Your task to perform on an android device: toggle notifications settings in the gmail app Image 0: 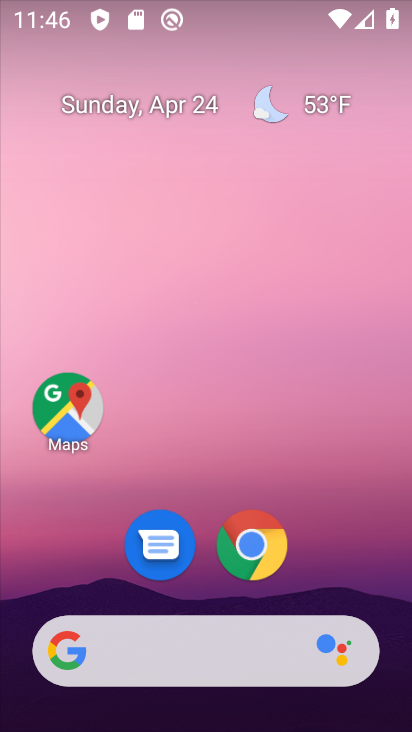
Step 0: drag from (185, 500) to (270, 80)
Your task to perform on an android device: toggle notifications settings in the gmail app Image 1: 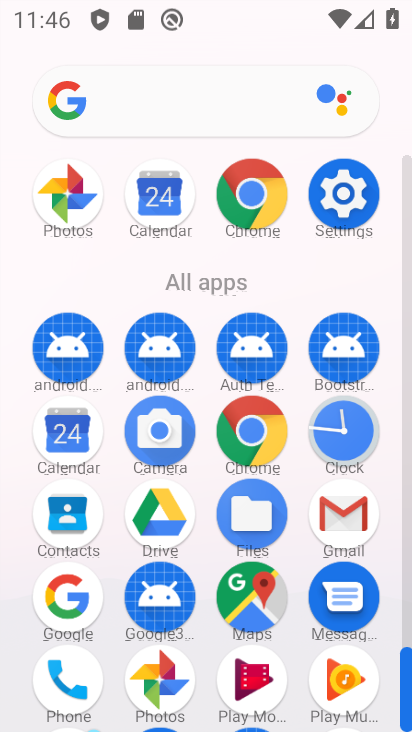
Step 1: click (355, 511)
Your task to perform on an android device: toggle notifications settings in the gmail app Image 2: 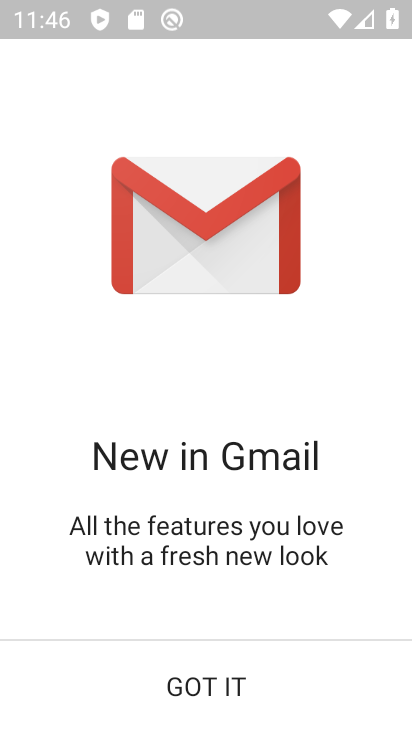
Step 2: click (253, 693)
Your task to perform on an android device: toggle notifications settings in the gmail app Image 3: 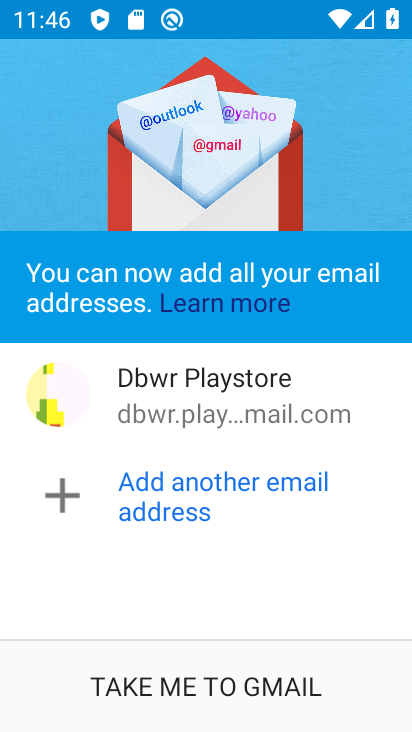
Step 3: click (244, 691)
Your task to perform on an android device: toggle notifications settings in the gmail app Image 4: 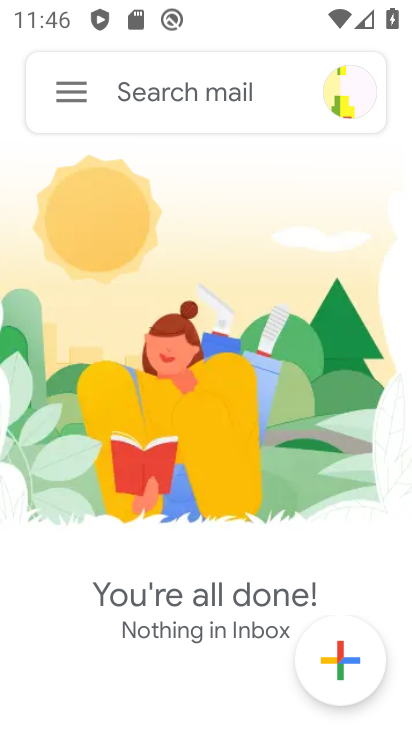
Step 4: click (87, 104)
Your task to perform on an android device: toggle notifications settings in the gmail app Image 5: 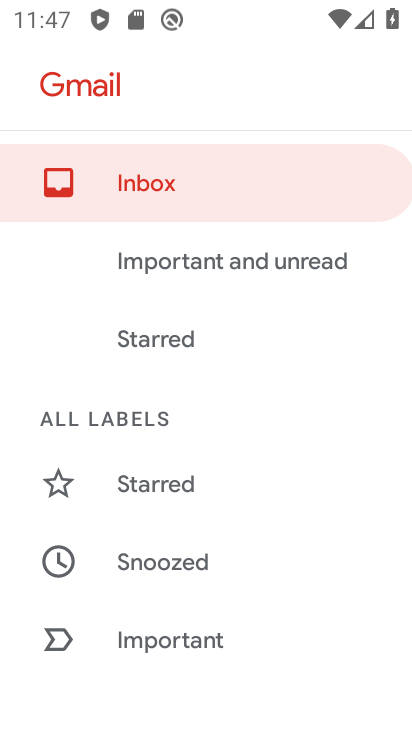
Step 5: drag from (158, 659) to (342, 46)
Your task to perform on an android device: toggle notifications settings in the gmail app Image 6: 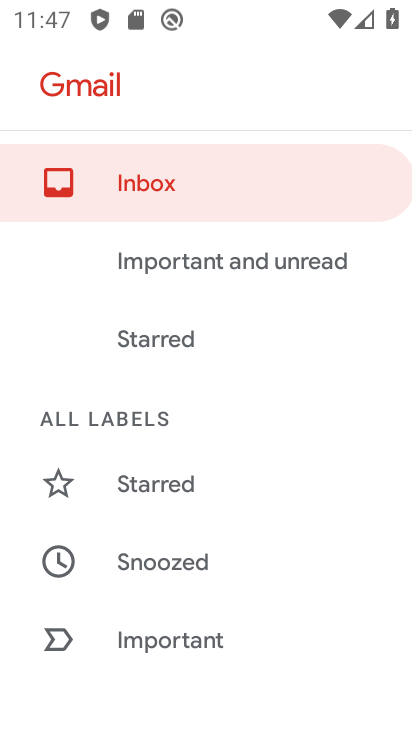
Step 6: drag from (244, 535) to (301, 186)
Your task to perform on an android device: toggle notifications settings in the gmail app Image 7: 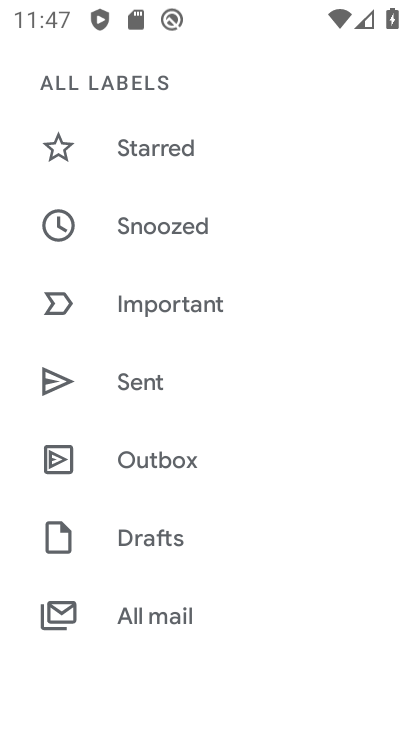
Step 7: drag from (199, 587) to (354, 47)
Your task to perform on an android device: toggle notifications settings in the gmail app Image 8: 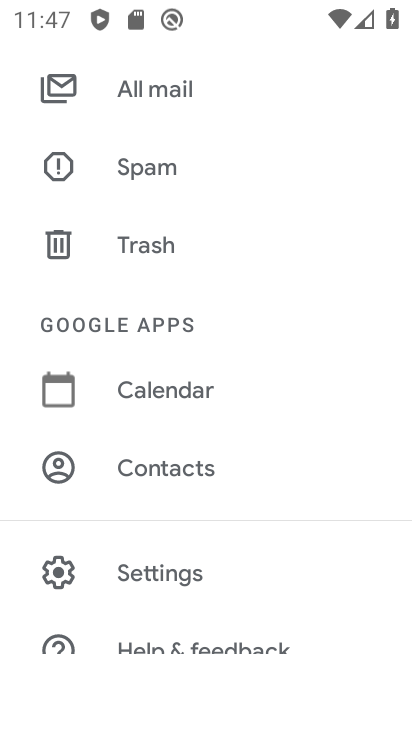
Step 8: click (237, 579)
Your task to perform on an android device: toggle notifications settings in the gmail app Image 9: 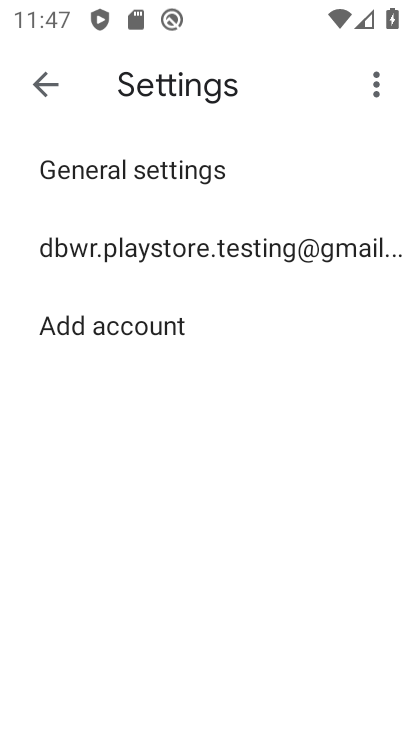
Step 9: click (222, 249)
Your task to perform on an android device: toggle notifications settings in the gmail app Image 10: 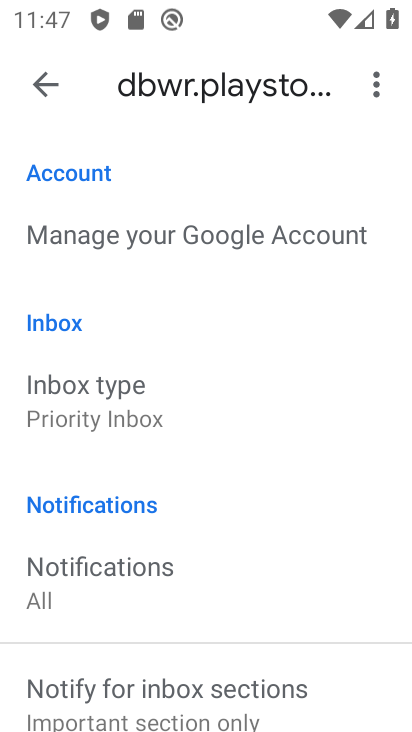
Step 10: drag from (185, 599) to (245, 323)
Your task to perform on an android device: toggle notifications settings in the gmail app Image 11: 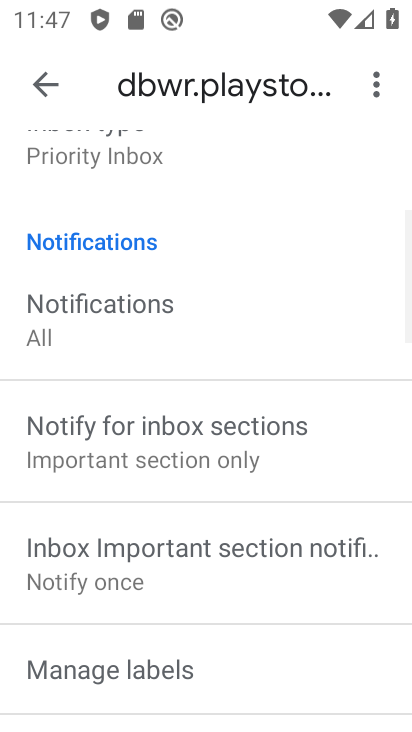
Step 11: drag from (200, 668) to (302, 274)
Your task to perform on an android device: toggle notifications settings in the gmail app Image 12: 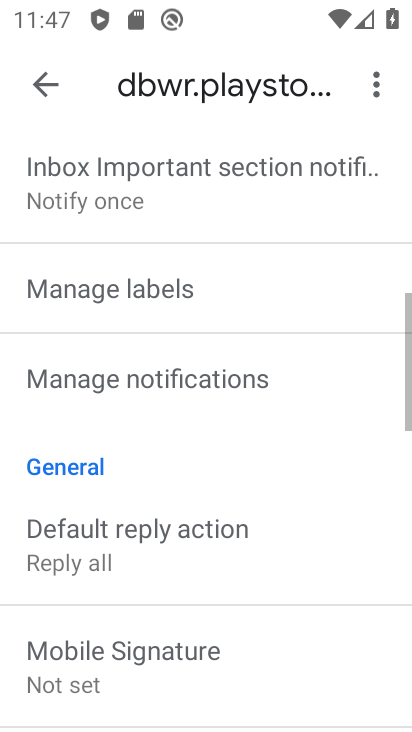
Step 12: click (250, 414)
Your task to perform on an android device: toggle notifications settings in the gmail app Image 13: 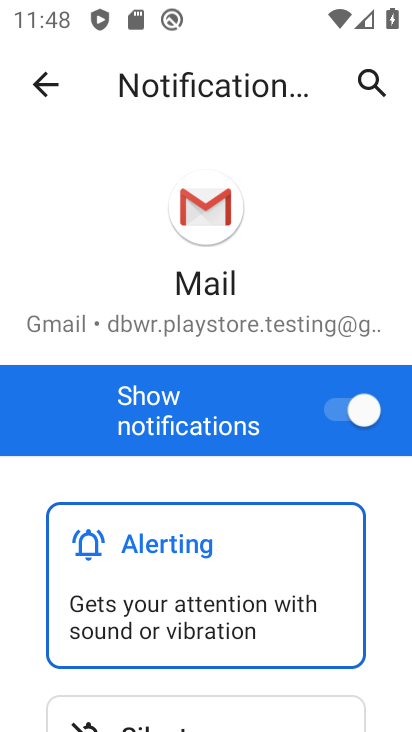
Step 13: click (329, 407)
Your task to perform on an android device: toggle notifications settings in the gmail app Image 14: 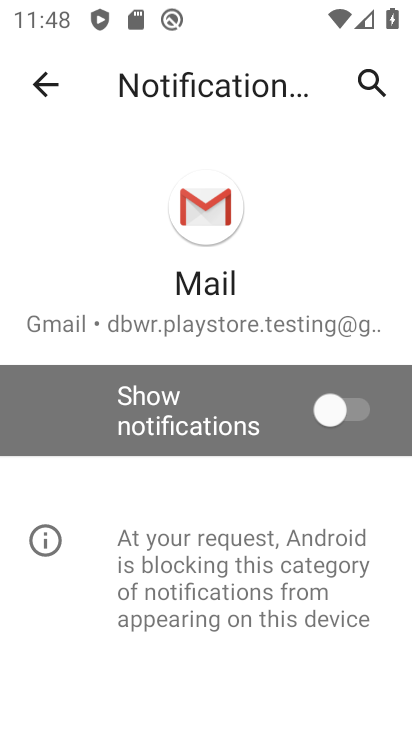
Step 14: task complete